Your task to perform on an android device: open app "Expedia: Hotels, Flights & Car" (install if not already installed) Image 0: 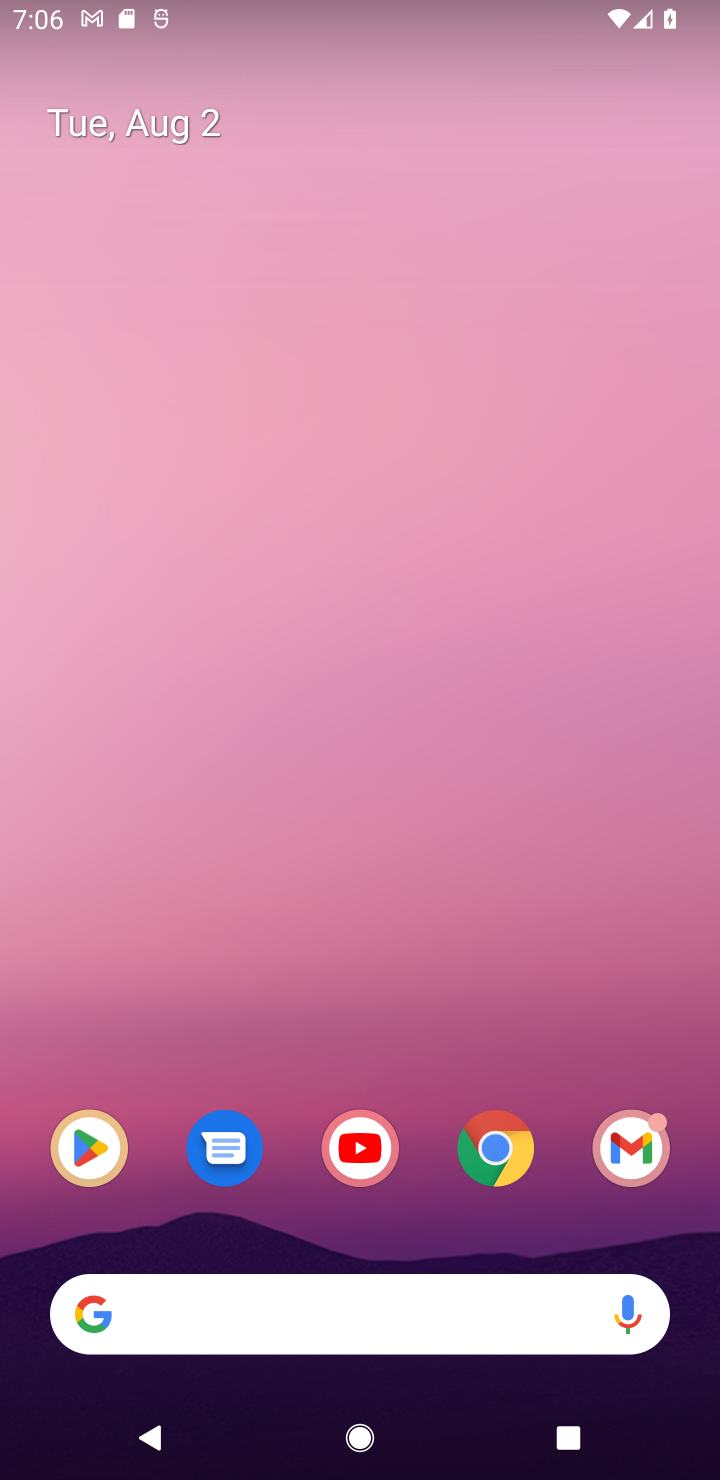
Step 0: drag from (565, 853) to (341, 64)
Your task to perform on an android device: open app "Expedia: Hotels, Flights & Car" (install if not already installed) Image 1: 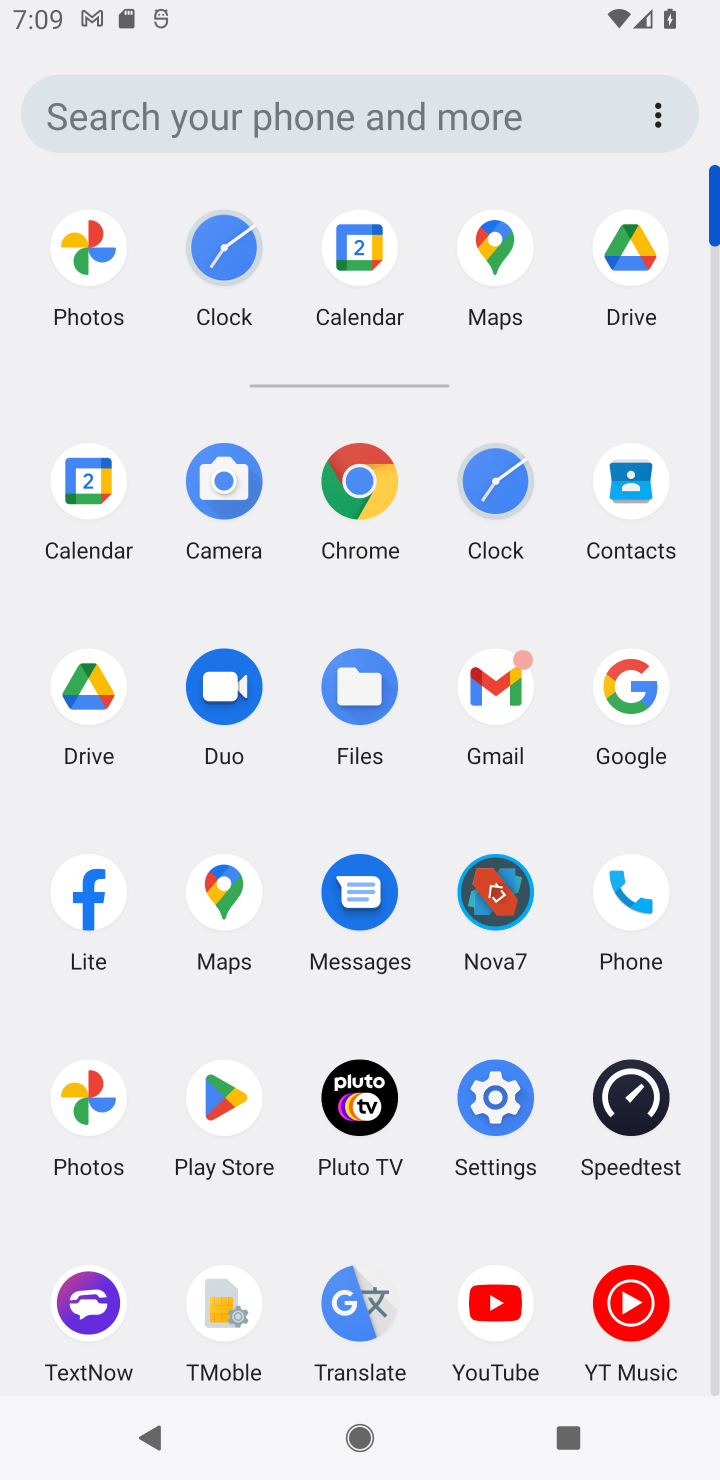
Step 1: click (202, 1123)
Your task to perform on an android device: open app "Expedia: Hotels, Flights & Car" (install if not already installed) Image 2: 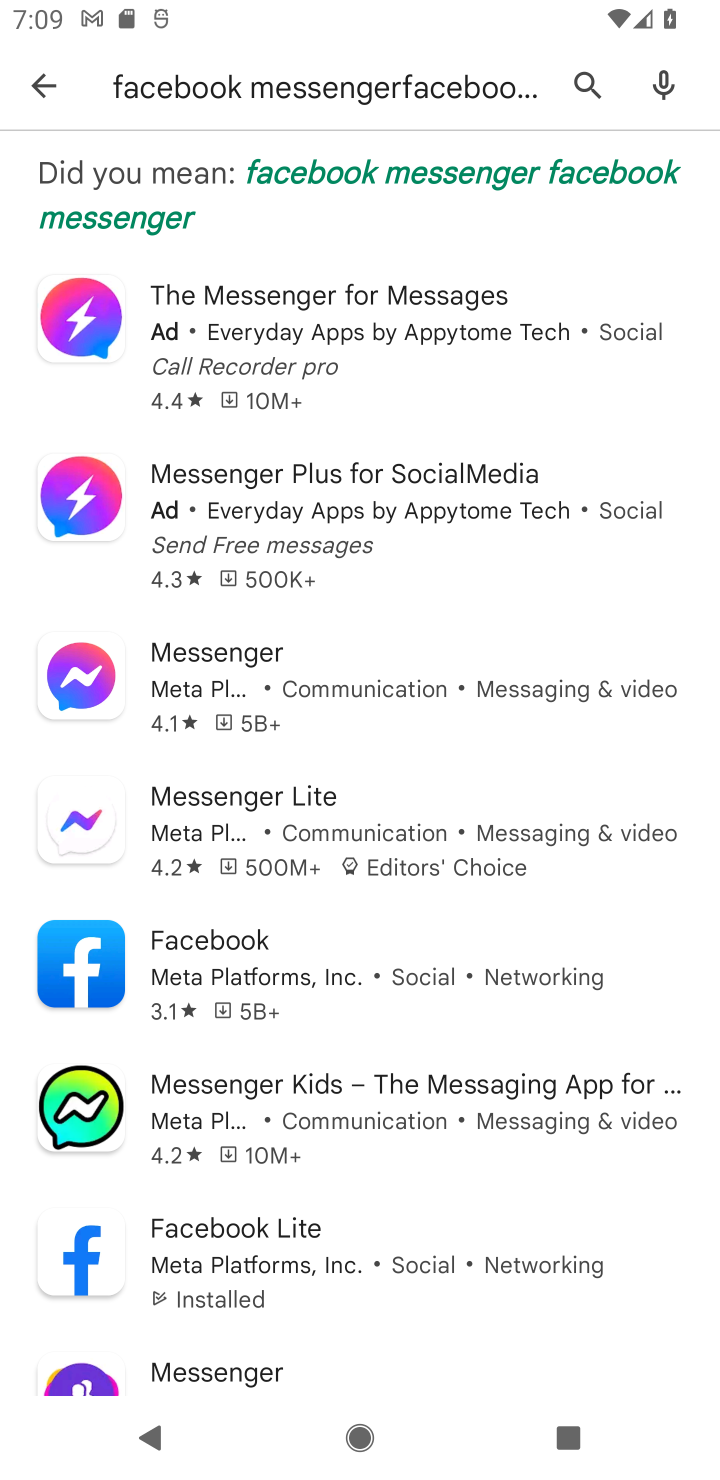
Step 2: press back button
Your task to perform on an android device: open app "Expedia: Hotels, Flights & Car" (install if not already installed) Image 3: 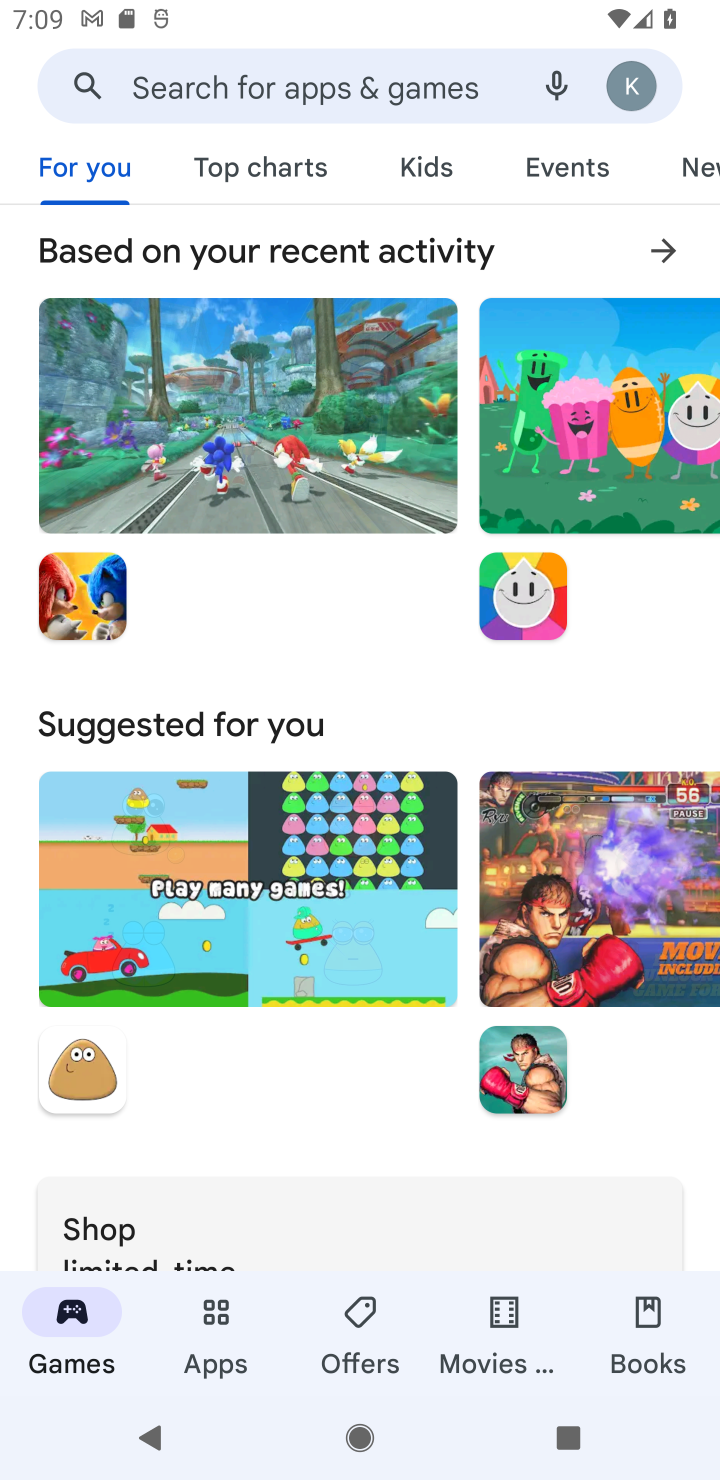
Step 3: click (224, 97)
Your task to perform on an android device: open app "Expedia: Hotels, Flights & Car" (install if not already installed) Image 4: 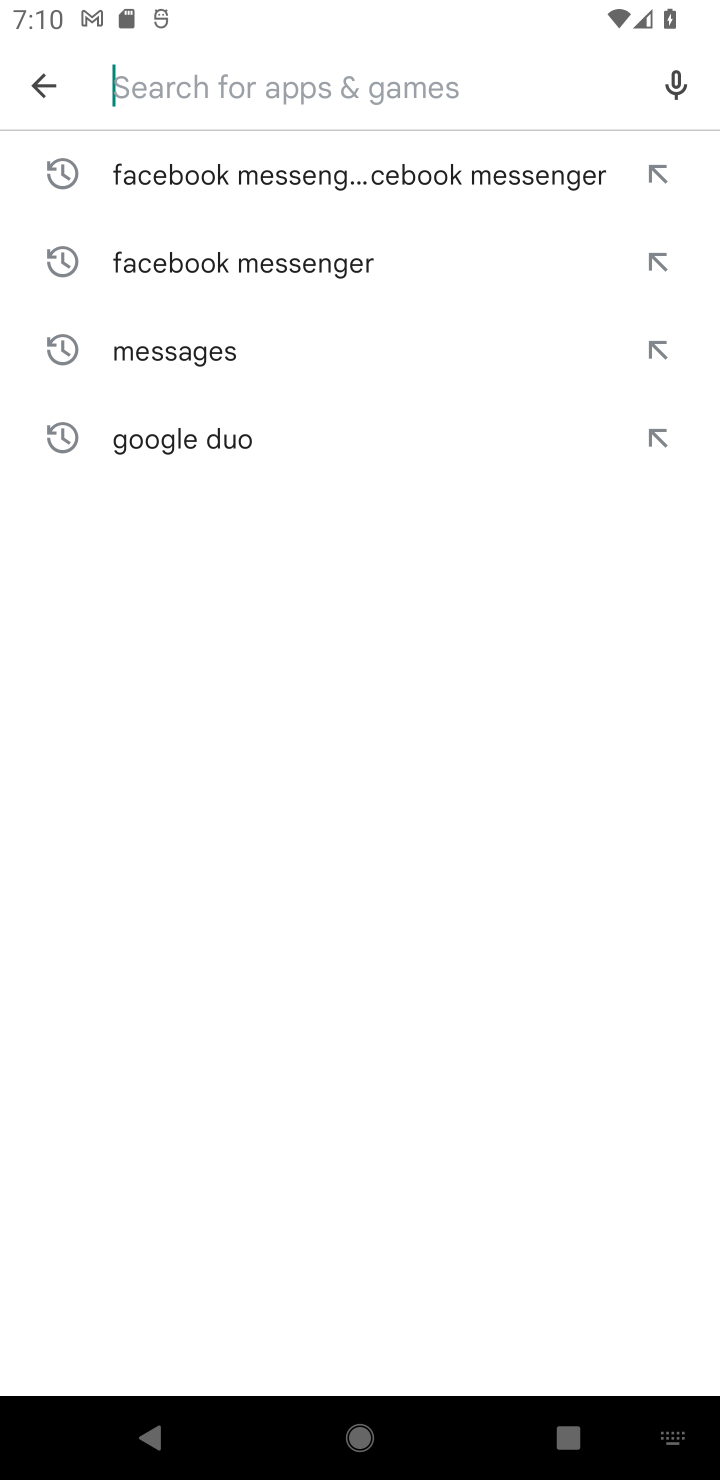
Step 4: type "Expedia: Hotels, Flights & Car"
Your task to perform on an android device: open app "Expedia: Hotels, Flights & Car" (install if not already installed) Image 5: 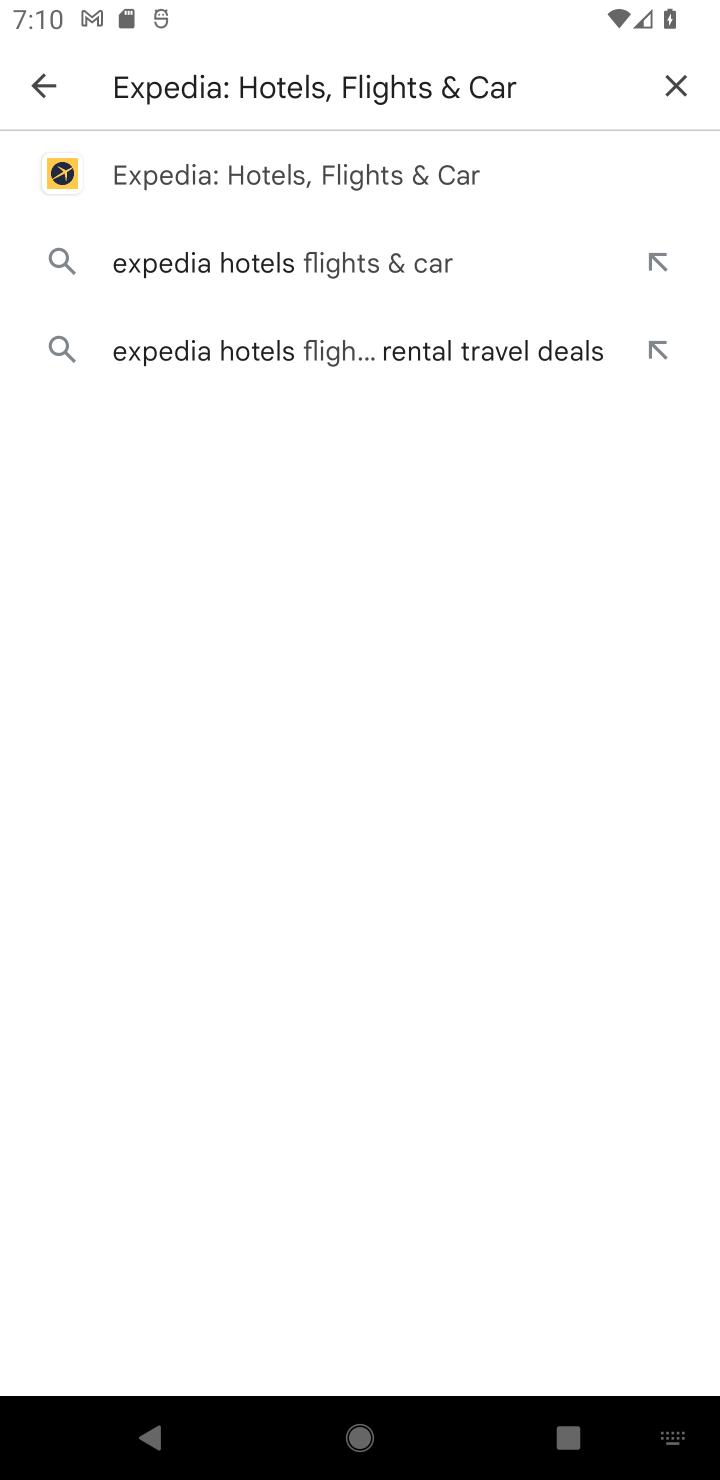
Step 5: click (203, 187)
Your task to perform on an android device: open app "Expedia: Hotels, Flights & Car" (install if not already installed) Image 6: 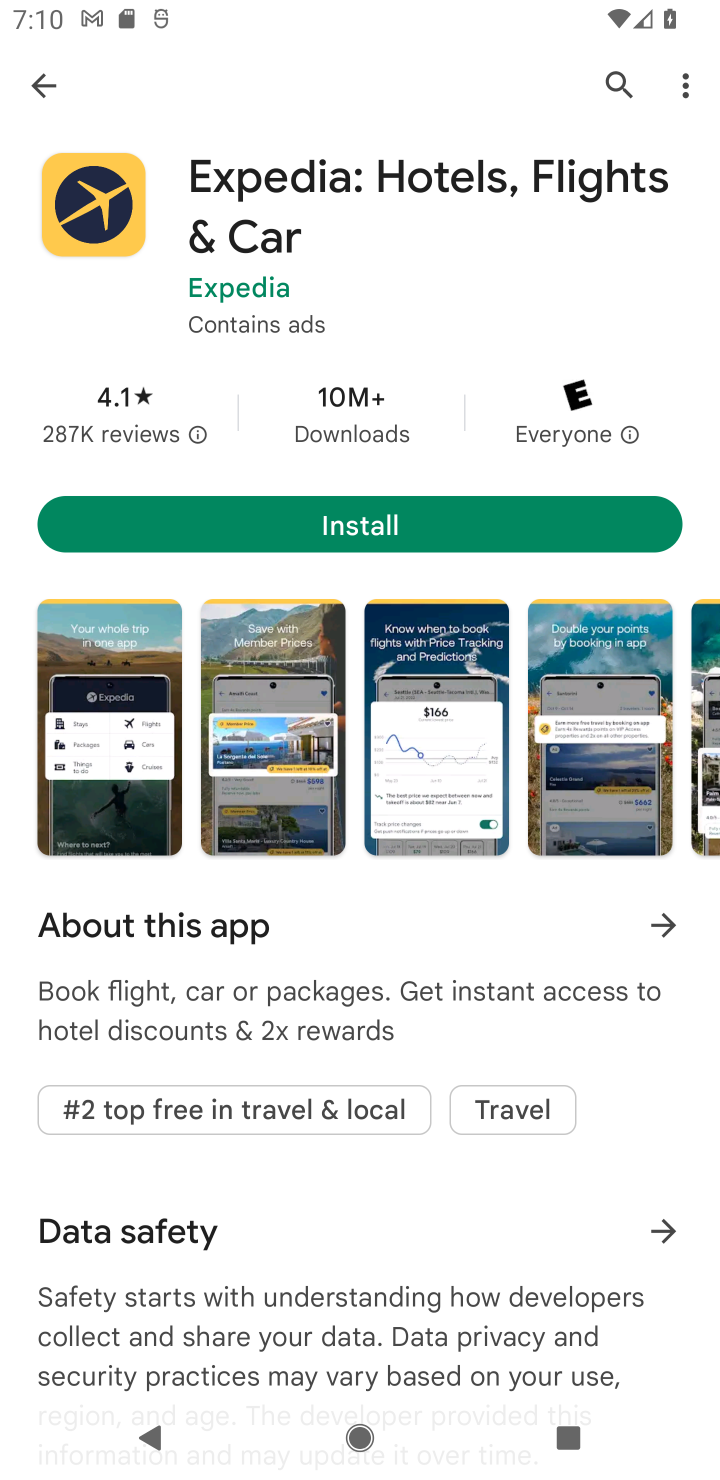
Step 6: task complete